Your task to perform on an android device: turn pop-ups off in chrome Image 0: 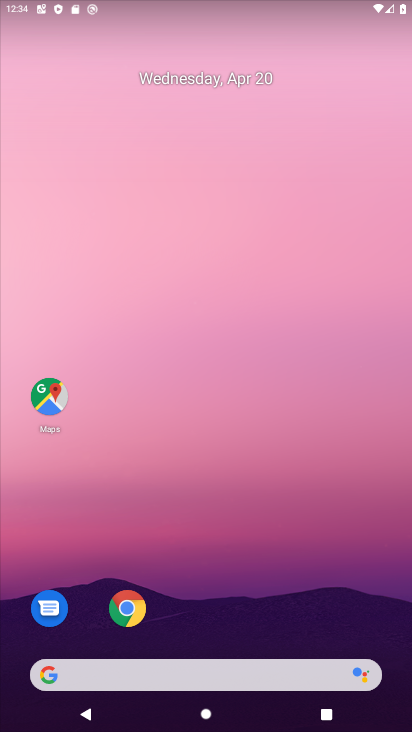
Step 0: click (137, 602)
Your task to perform on an android device: turn pop-ups off in chrome Image 1: 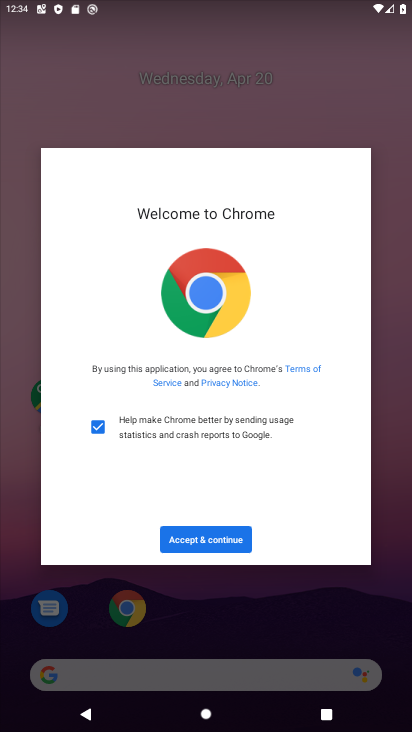
Step 1: click (190, 542)
Your task to perform on an android device: turn pop-ups off in chrome Image 2: 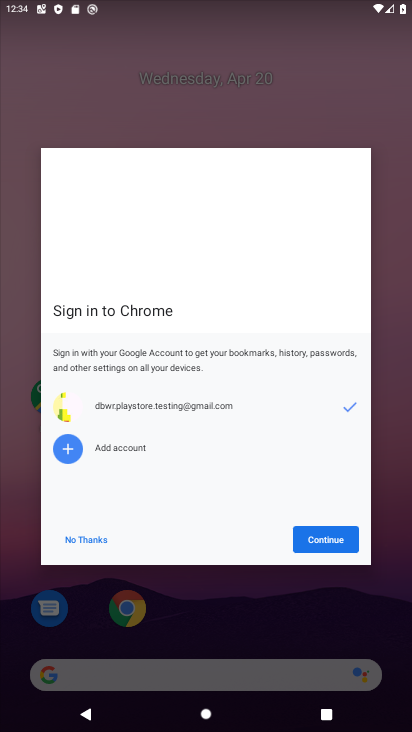
Step 2: click (306, 544)
Your task to perform on an android device: turn pop-ups off in chrome Image 3: 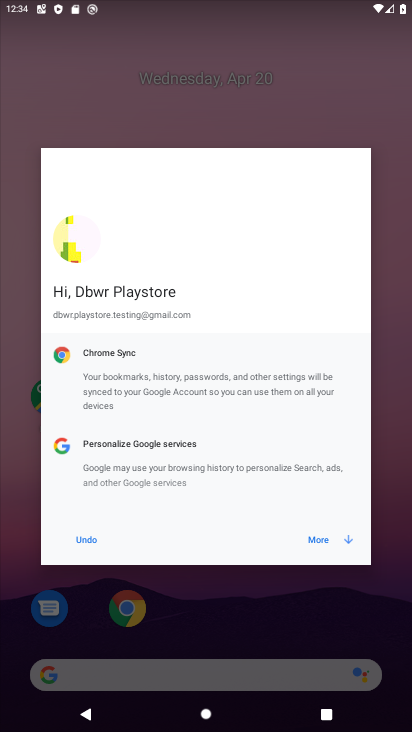
Step 3: click (306, 544)
Your task to perform on an android device: turn pop-ups off in chrome Image 4: 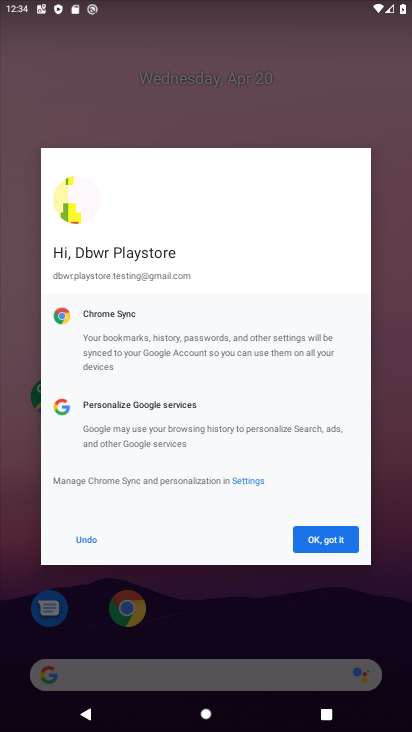
Step 4: click (306, 544)
Your task to perform on an android device: turn pop-ups off in chrome Image 5: 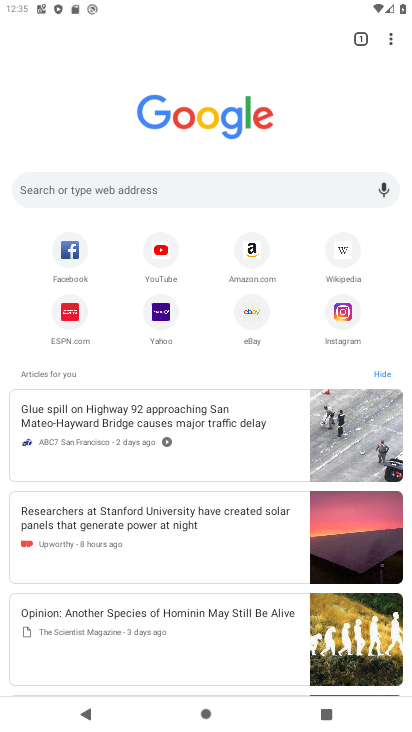
Step 5: click (387, 47)
Your task to perform on an android device: turn pop-ups off in chrome Image 6: 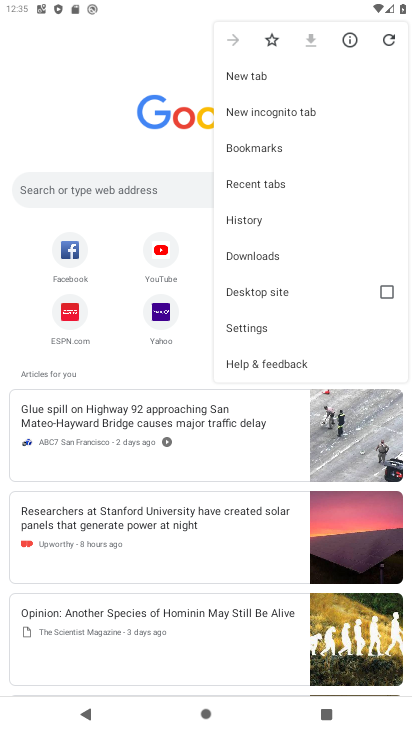
Step 6: click (281, 327)
Your task to perform on an android device: turn pop-ups off in chrome Image 7: 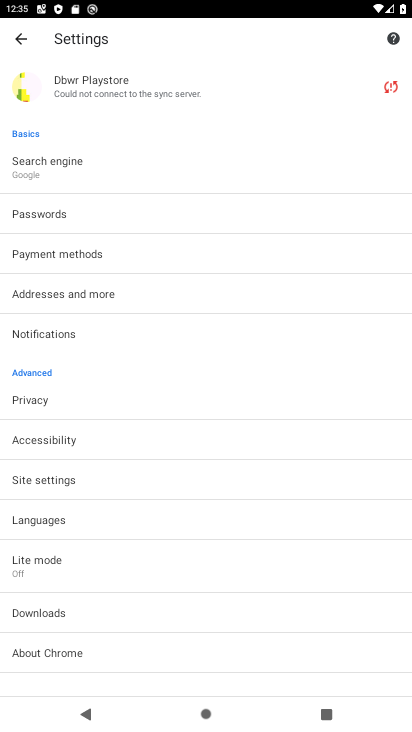
Step 7: click (111, 492)
Your task to perform on an android device: turn pop-ups off in chrome Image 8: 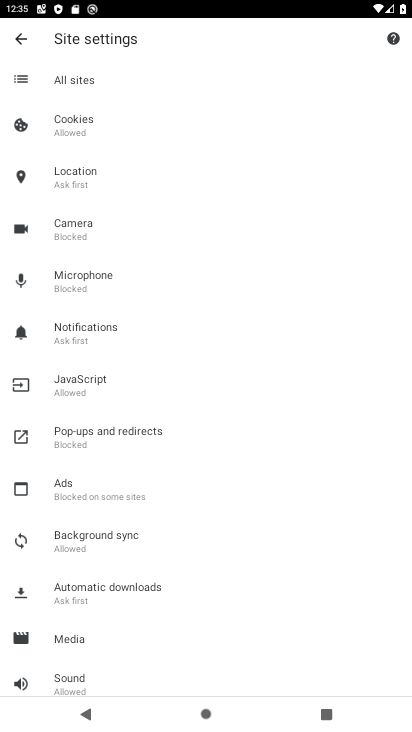
Step 8: click (143, 443)
Your task to perform on an android device: turn pop-ups off in chrome Image 9: 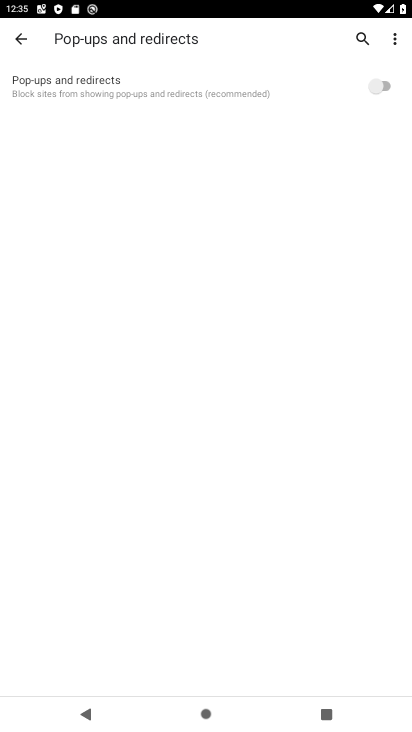
Step 9: task complete